Your task to perform on an android device: Go to battery settings Image 0: 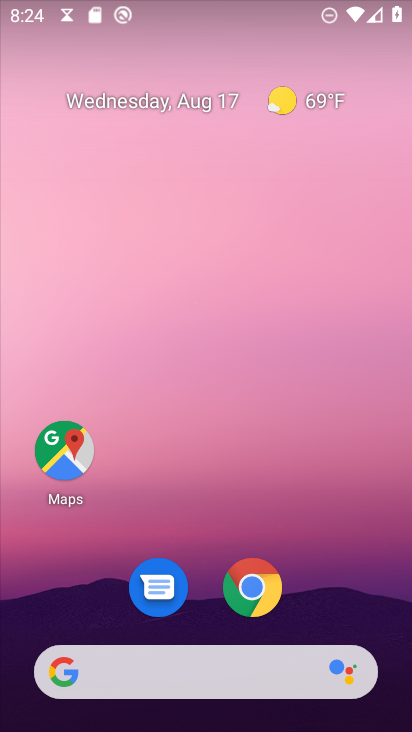
Step 0: drag from (21, 674) to (134, 353)
Your task to perform on an android device: Go to battery settings Image 1: 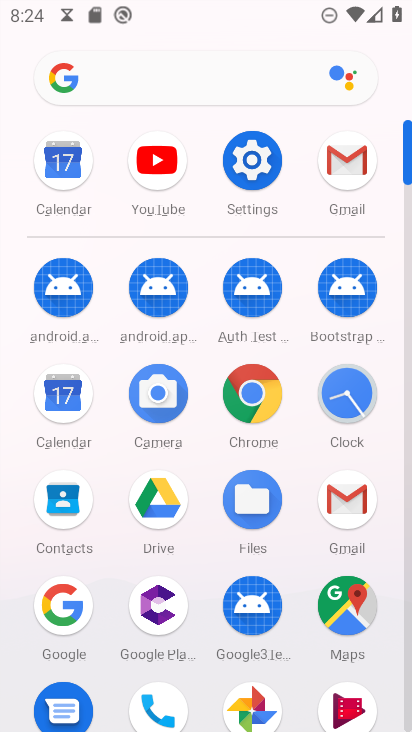
Step 1: click (234, 174)
Your task to perform on an android device: Go to battery settings Image 2: 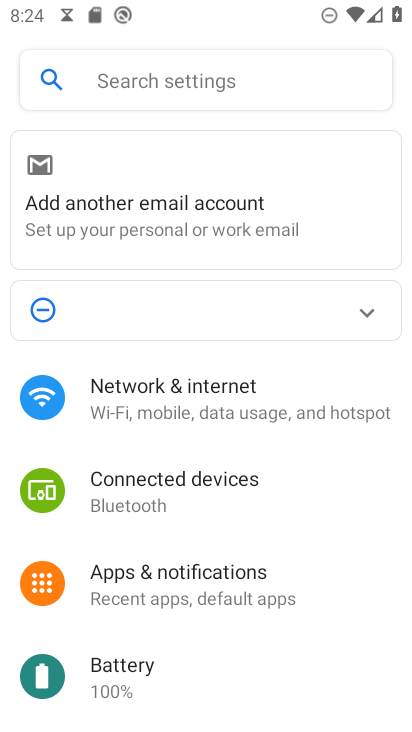
Step 2: click (118, 673)
Your task to perform on an android device: Go to battery settings Image 3: 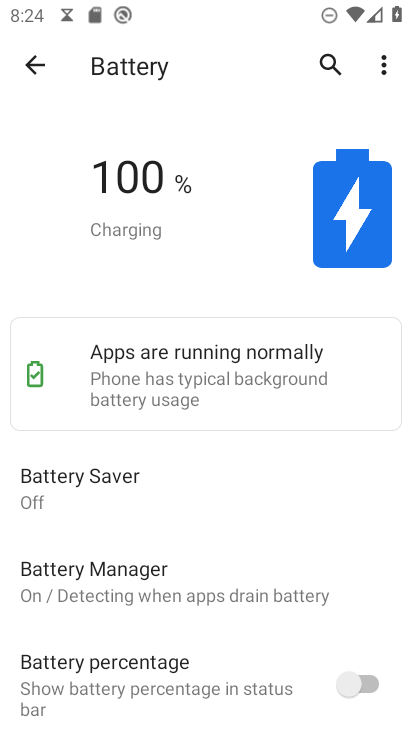
Step 3: task complete